Your task to perform on an android device: Search for Mexican restaurants on Maps Image 0: 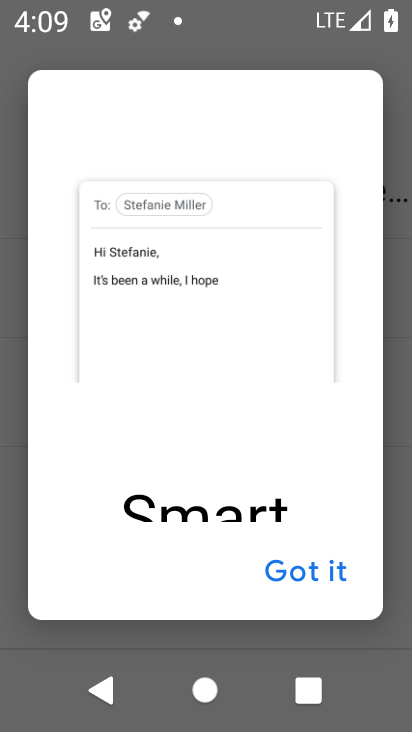
Step 0: press home button
Your task to perform on an android device: Search for Mexican restaurants on Maps Image 1: 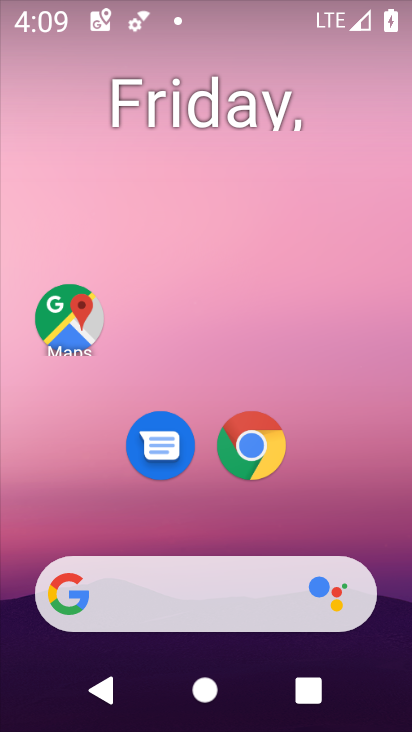
Step 1: click (84, 329)
Your task to perform on an android device: Search for Mexican restaurants on Maps Image 2: 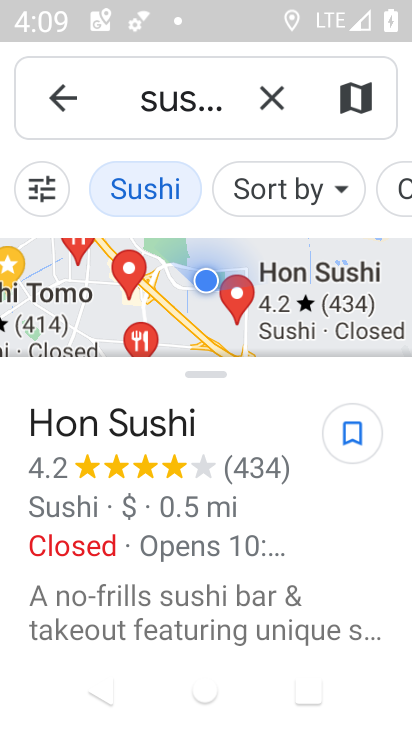
Step 2: click (268, 97)
Your task to perform on an android device: Search for Mexican restaurants on Maps Image 3: 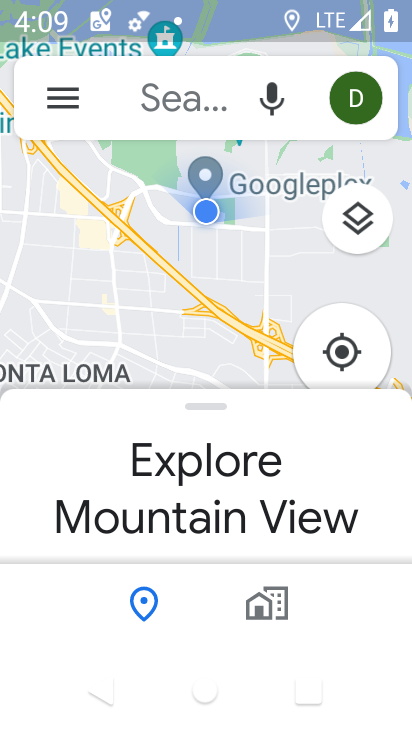
Step 3: click (203, 95)
Your task to perform on an android device: Search for Mexican restaurants on Maps Image 4: 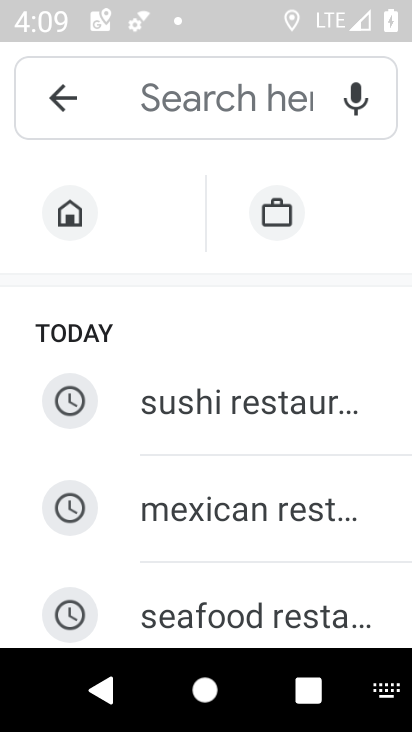
Step 4: click (198, 493)
Your task to perform on an android device: Search for Mexican restaurants on Maps Image 5: 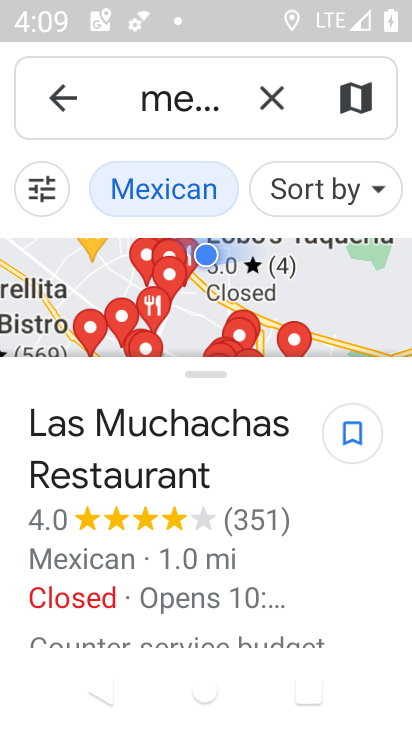
Step 5: task complete